Your task to perform on an android device: Open maps Image 0: 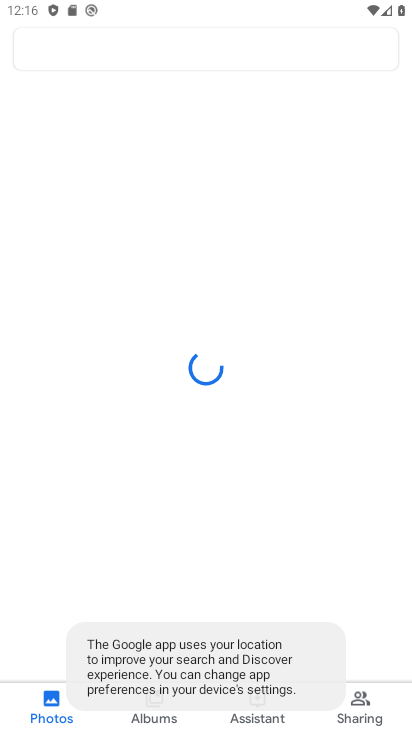
Step 0: press home button
Your task to perform on an android device: Open maps Image 1: 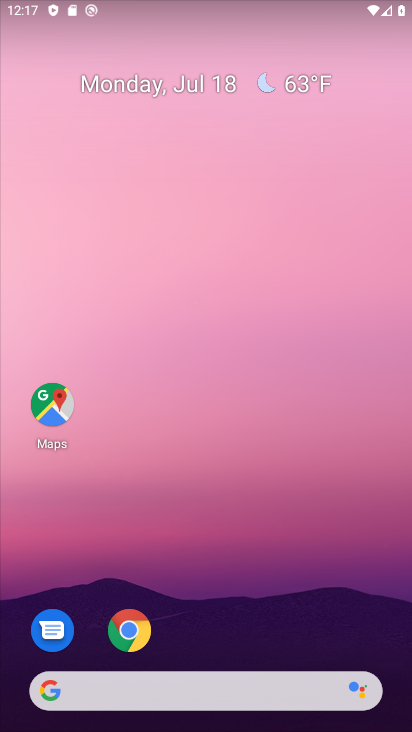
Step 1: drag from (192, 662) to (182, 73)
Your task to perform on an android device: Open maps Image 2: 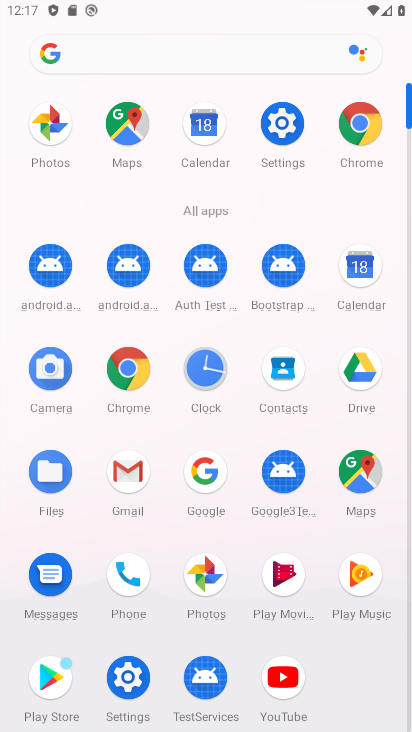
Step 2: click (355, 473)
Your task to perform on an android device: Open maps Image 3: 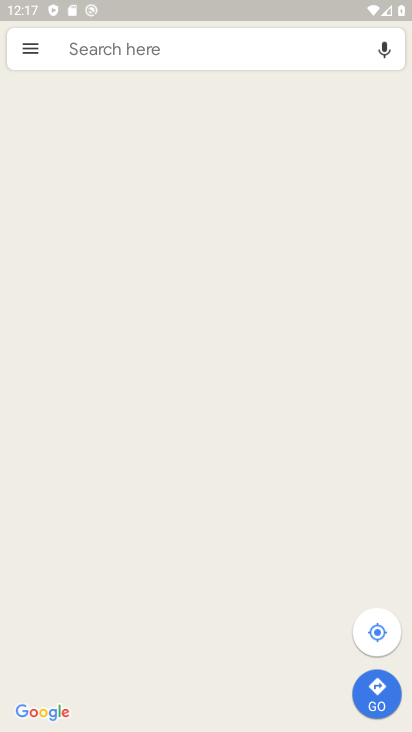
Step 3: task complete